Your task to perform on an android device: turn on improve location accuracy Image 0: 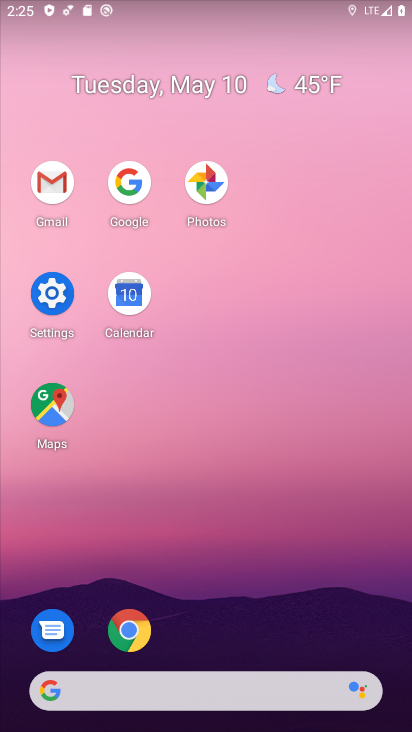
Step 0: click (61, 296)
Your task to perform on an android device: turn on improve location accuracy Image 1: 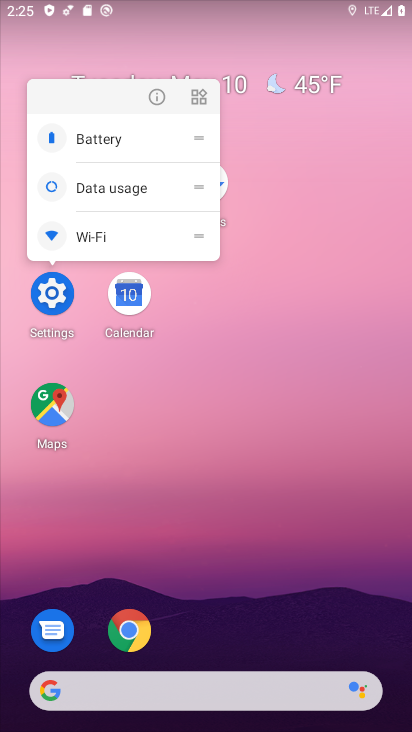
Step 1: click (32, 302)
Your task to perform on an android device: turn on improve location accuracy Image 2: 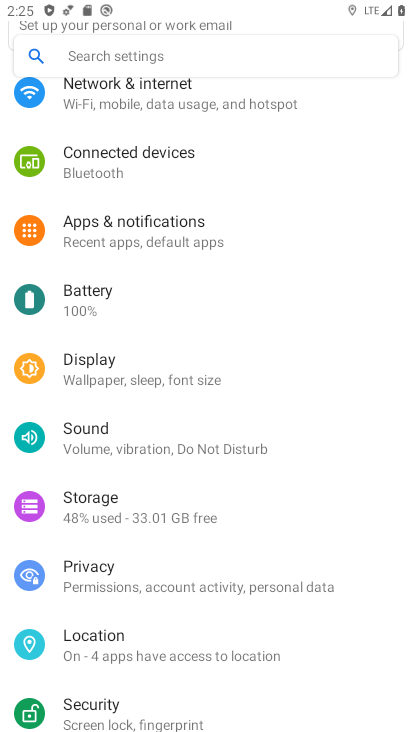
Step 2: click (181, 642)
Your task to perform on an android device: turn on improve location accuracy Image 3: 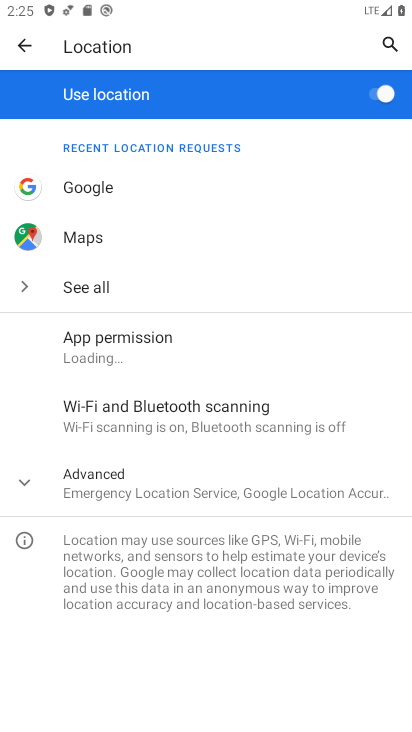
Step 3: click (197, 483)
Your task to perform on an android device: turn on improve location accuracy Image 4: 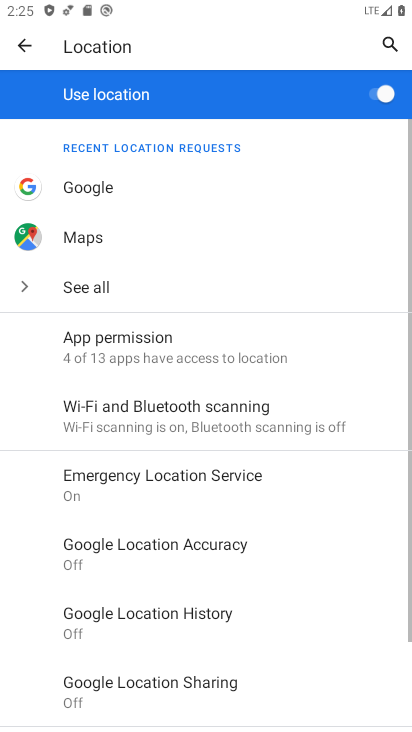
Step 4: click (219, 559)
Your task to perform on an android device: turn on improve location accuracy Image 5: 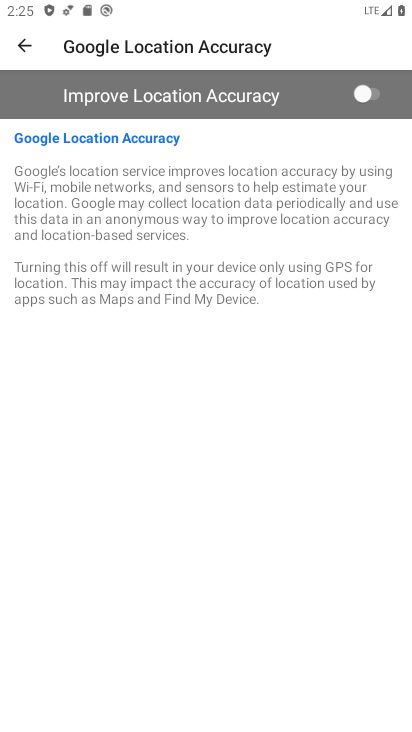
Step 5: click (379, 100)
Your task to perform on an android device: turn on improve location accuracy Image 6: 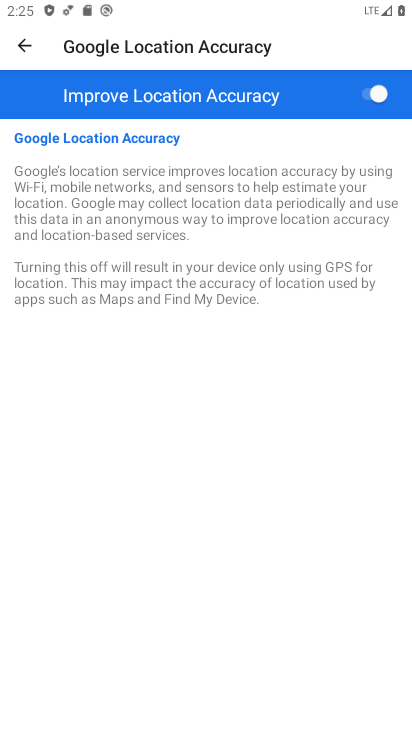
Step 6: task complete